Your task to perform on an android device: turn off picture-in-picture Image 0: 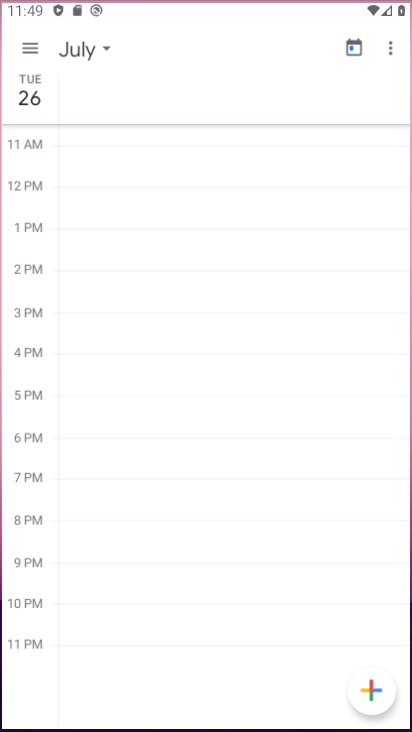
Step 0: drag from (233, 623) to (202, 440)
Your task to perform on an android device: turn off picture-in-picture Image 1: 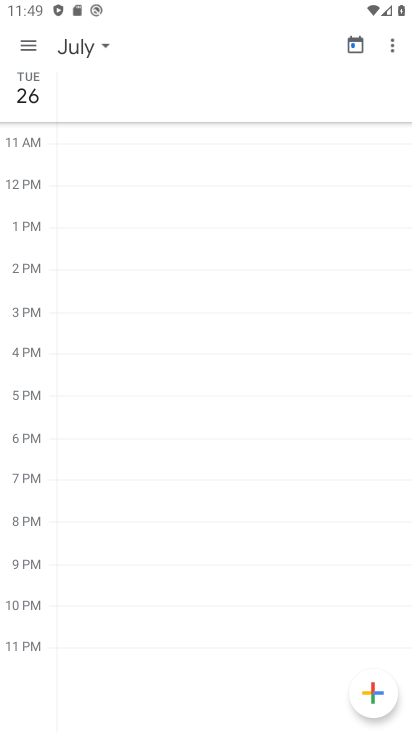
Step 1: press home button
Your task to perform on an android device: turn off picture-in-picture Image 2: 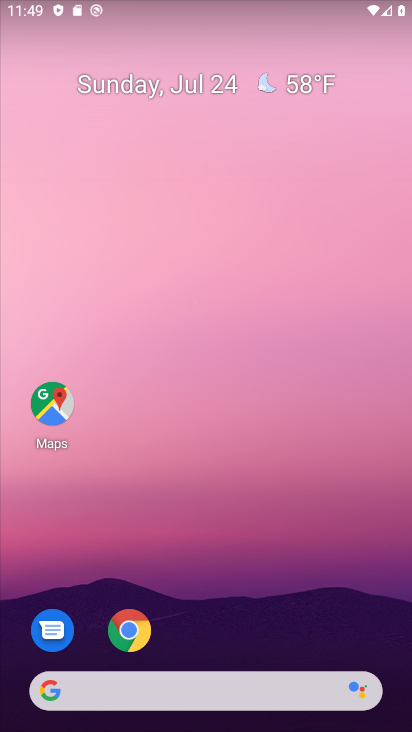
Step 2: click (140, 633)
Your task to perform on an android device: turn off picture-in-picture Image 3: 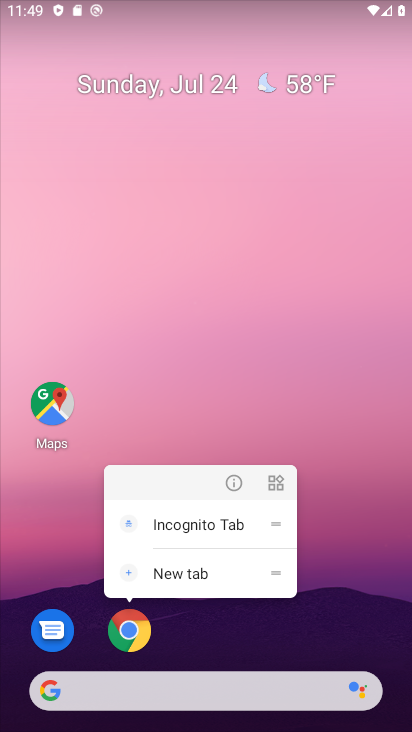
Step 3: click (235, 485)
Your task to perform on an android device: turn off picture-in-picture Image 4: 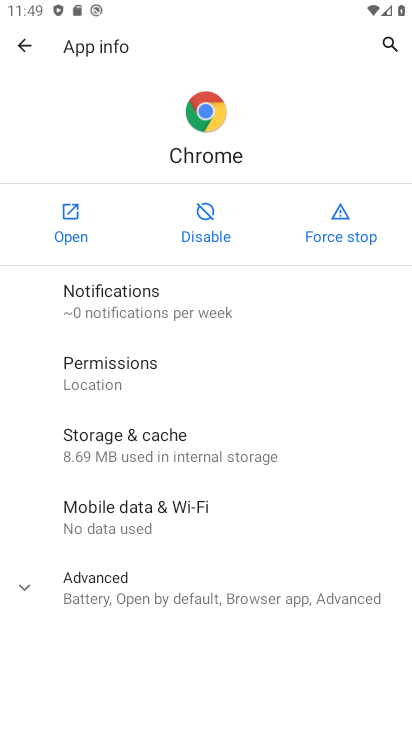
Step 4: click (190, 593)
Your task to perform on an android device: turn off picture-in-picture Image 5: 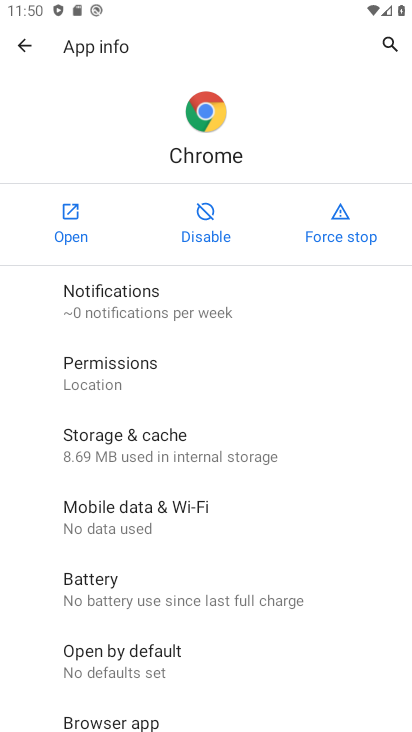
Step 5: drag from (198, 684) to (178, 119)
Your task to perform on an android device: turn off picture-in-picture Image 6: 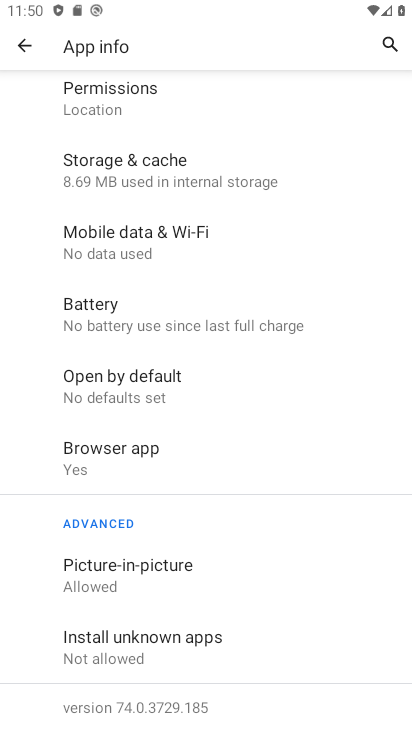
Step 6: click (169, 572)
Your task to perform on an android device: turn off picture-in-picture Image 7: 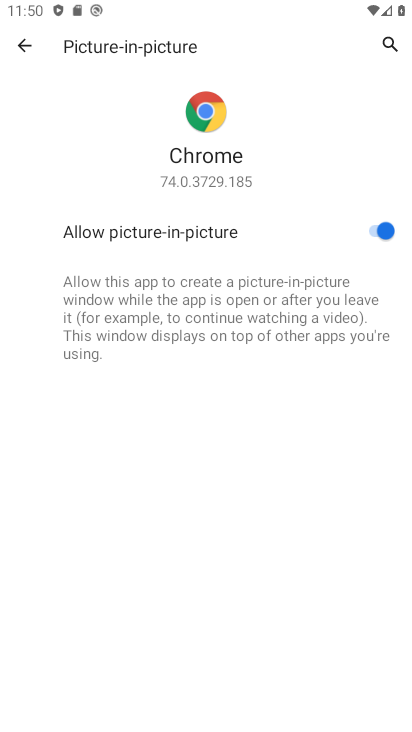
Step 7: click (388, 230)
Your task to perform on an android device: turn off picture-in-picture Image 8: 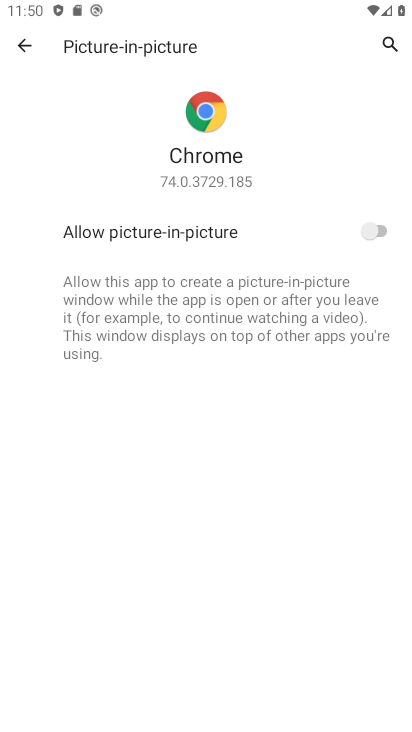
Step 8: task complete